Your task to perform on an android device: toggle show notifications on the lock screen Image 0: 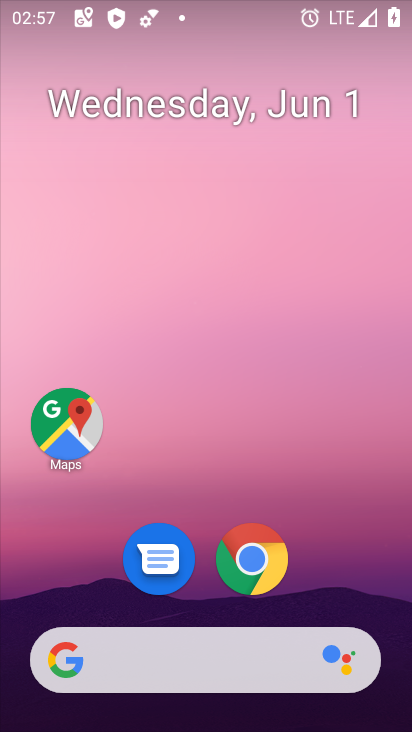
Step 0: drag from (328, 608) to (271, 228)
Your task to perform on an android device: toggle show notifications on the lock screen Image 1: 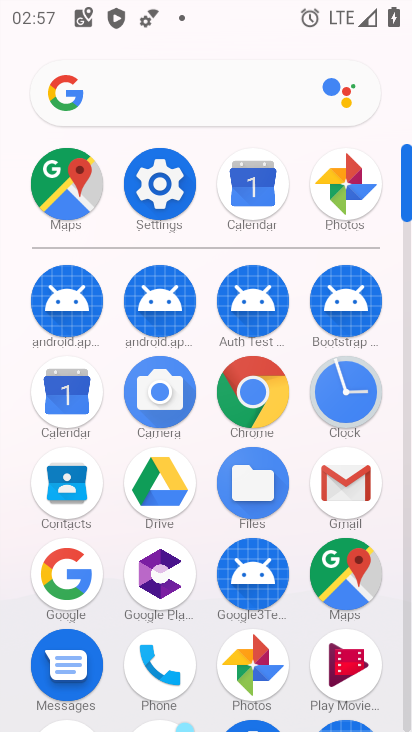
Step 1: click (160, 183)
Your task to perform on an android device: toggle show notifications on the lock screen Image 2: 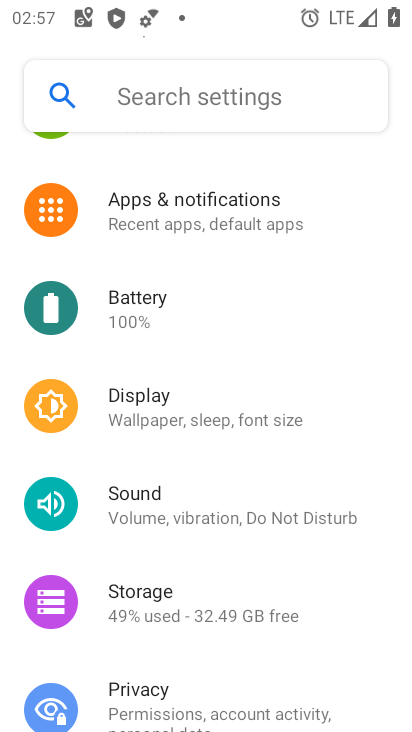
Step 2: click (161, 208)
Your task to perform on an android device: toggle show notifications on the lock screen Image 3: 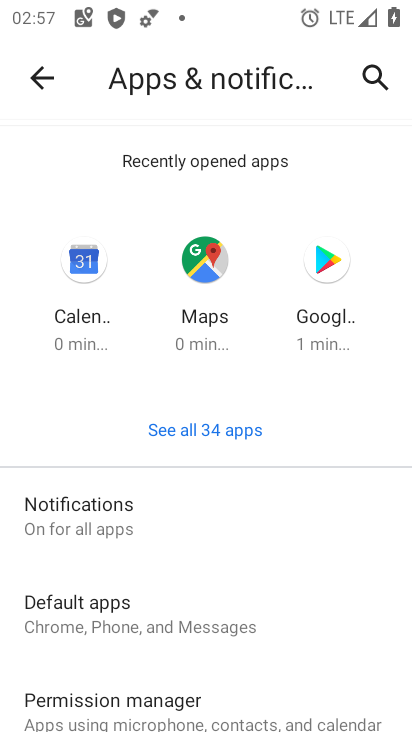
Step 3: click (160, 219)
Your task to perform on an android device: toggle show notifications on the lock screen Image 4: 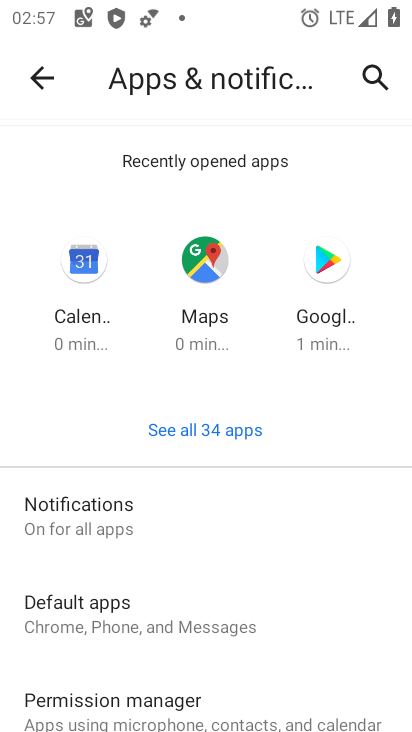
Step 4: click (46, 500)
Your task to perform on an android device: toggle show notifications on the lock screen Image 5: 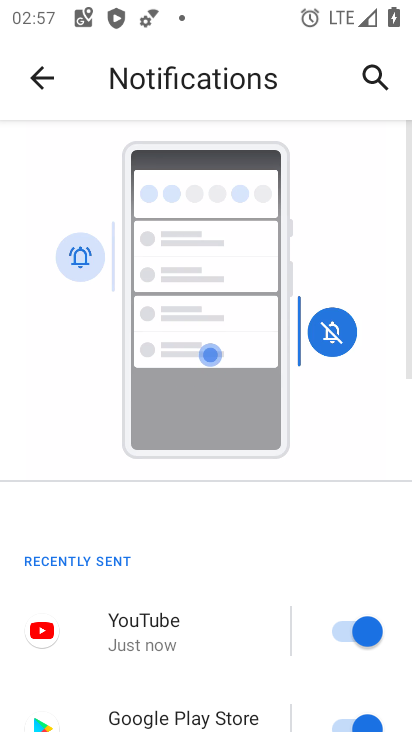
Step 5: drag from (269, 590) to (275, 232)
Your task to perform on an android device: toggle show notifications on the lock screen Image 6: 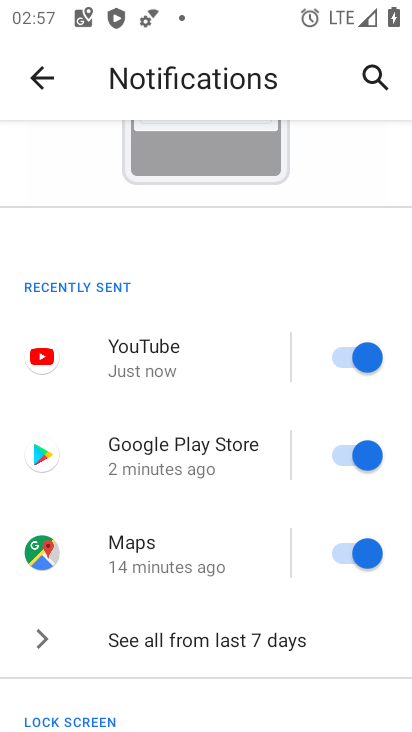
Step 6: drag from (225, 598) to (220, 317)
Your task to perform on an android device: toggle show notifications on the lock screen Image 7: 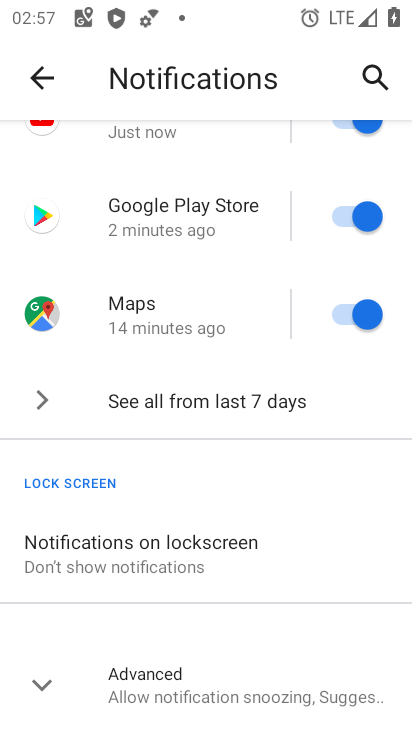
Step 7: click (120, 552)
Your task to perform on an android device: toggle show notifications on the lock screen Image 8: 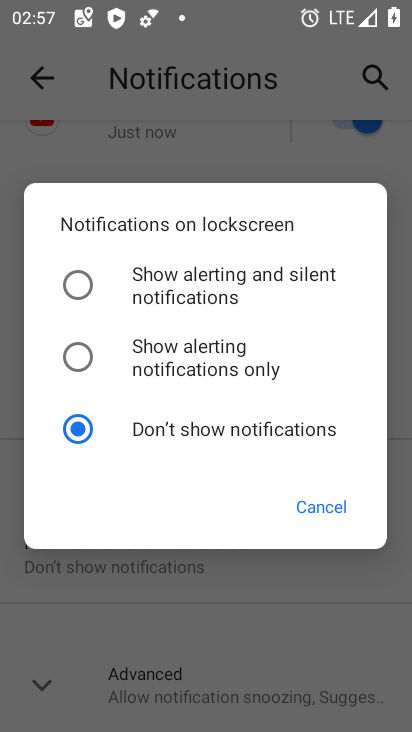
Step 8: click (83, 276)
Your task to perform on an android device: toggle show notifications on the lock screen Image 9: 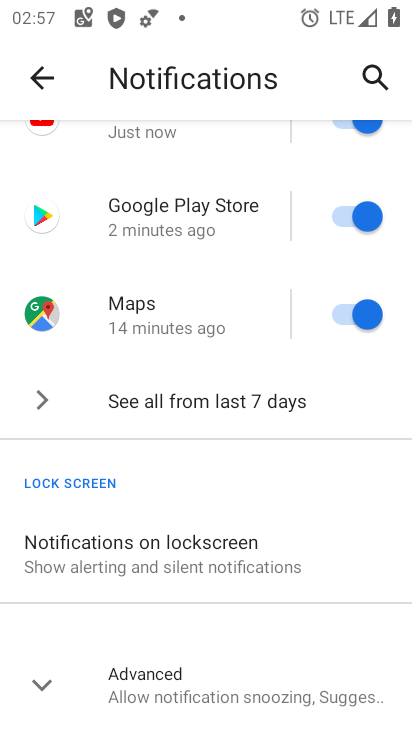
Step 9: click (156, 555)
Your task to perform on an android device: toggle show notifications on the lock screen Image 10: 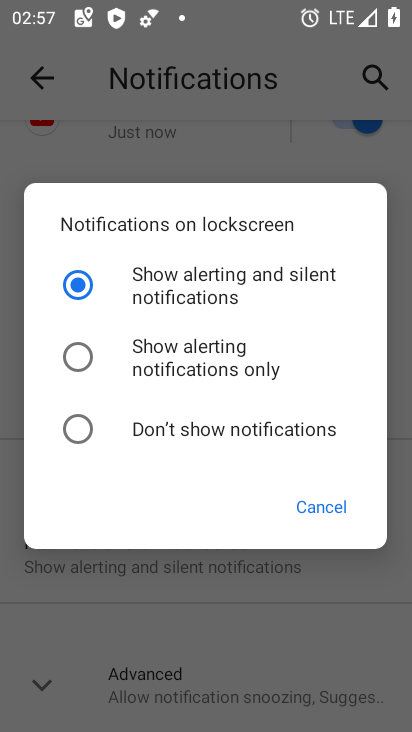
Step 10: task complete